Your task to perform on an android device: turn on data saver in the chrome app Image 0: 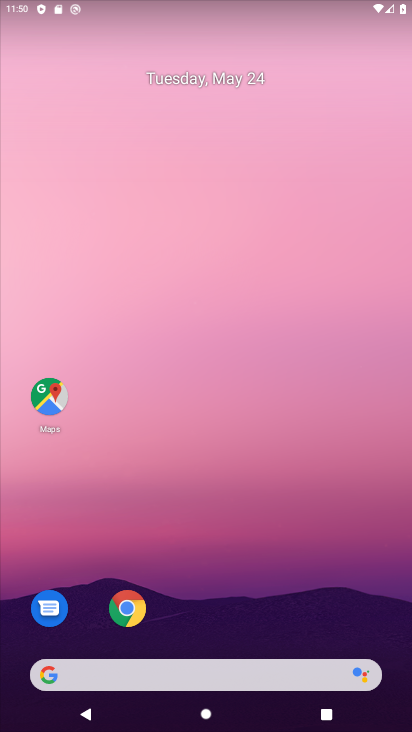
Step 0: drag from (361, 591) to (332, 155)
Your task to perform on an android device: turn on data saver in the chrome app Image 1: 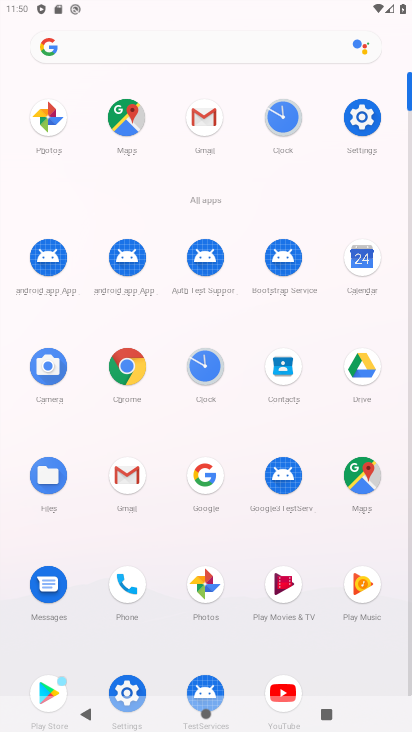
Step 1: click (116, 386)
Your task to perform on an android device: turn on data saver in the chrome app Image 2: 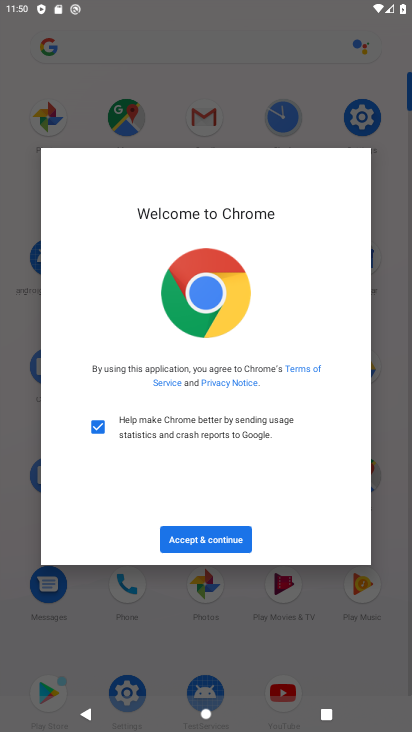
Step 2: click (225, 539)
Your task to perform on an android device: turn on data saver in the chrome app Image 3: 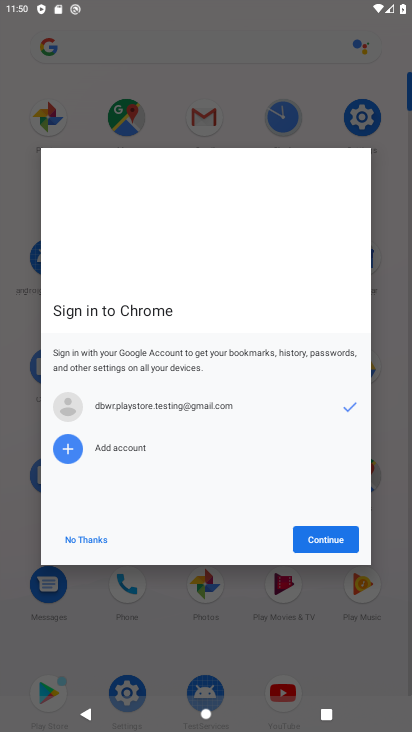
Step 3: click (331, 535)
Your task to perform on an android device: turn on data saver in the chrome app Image 4: 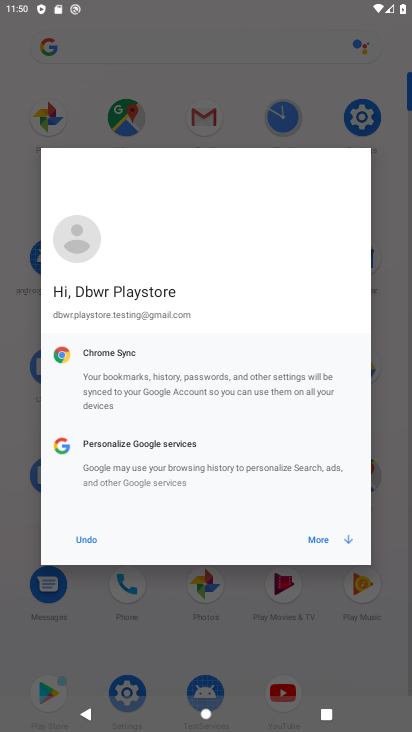
Step 4: click (330, 536)
Your task to perform on an android device: turn on data saver in the chrome app Image 5: 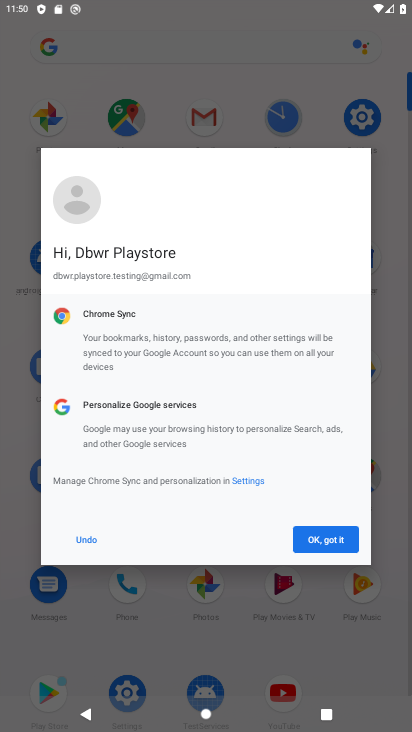
Step 5: click (329, 536)
Your task to perform on an android device: turn on data saver in the chrome app Image 6: 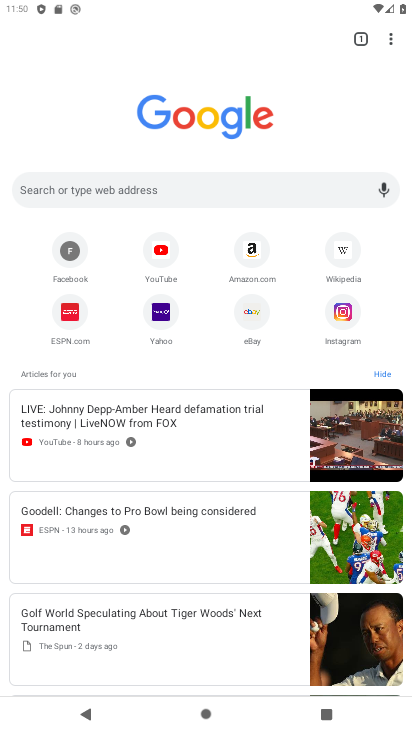
Step 6: drag from (391, 49) to (264, 332)
Your task to perform on an android device: turn on data saver in the chrome app Image 7: 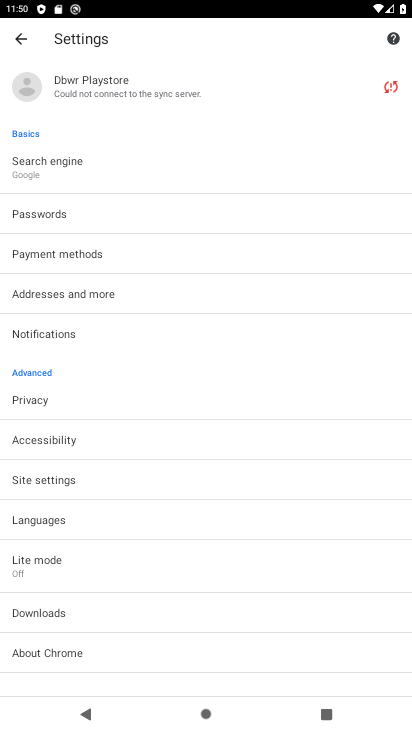
Step 7: click (58, 574)
Your task to perform on an android device: turn on data saver in the chrome app Image 8: 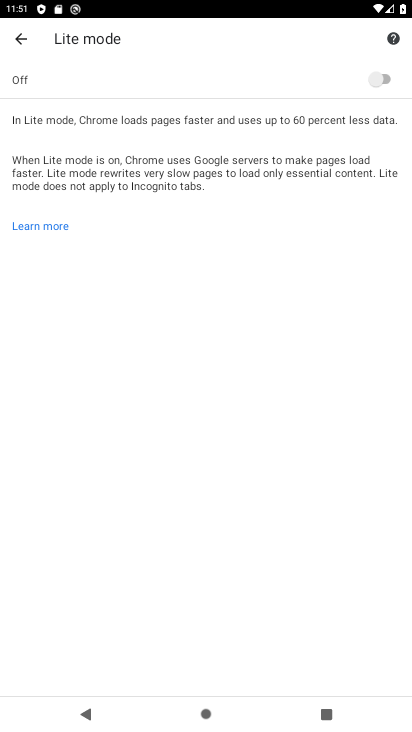
Step 8: click (389, 79)
Your task to perform on an android device: turn on data saver in the chrome app Image 9: 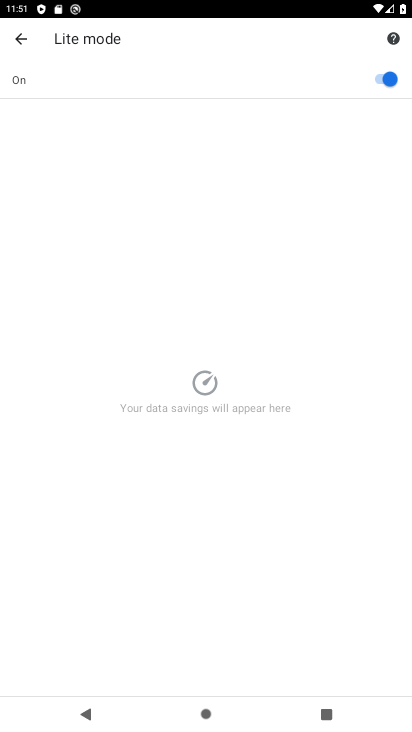
Step 9: task complete